Your task to perform on an android device: add a contact Image 0: 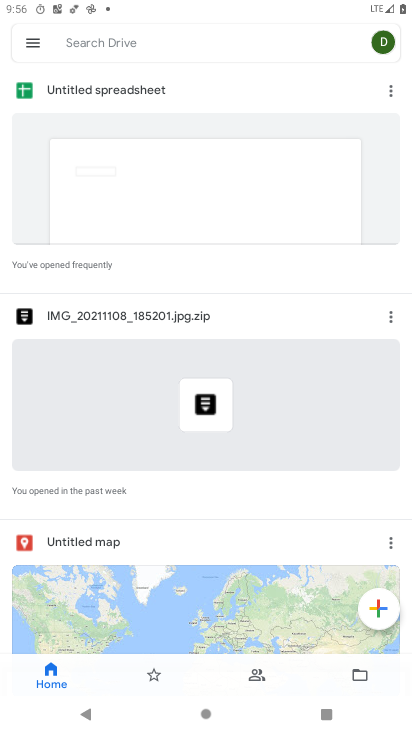
Step 0: press home button
Your task to perform on an android device: add a contact Image 1: 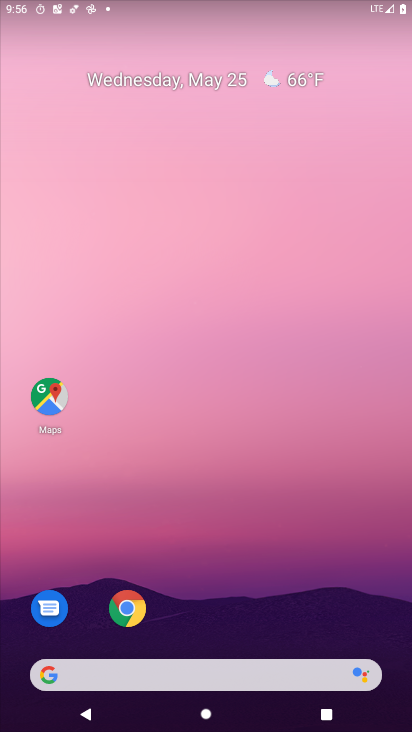
Step 1: drag from (228, 727) to (197, 219)
Your task to perform on an android device: add a contact Image 2: 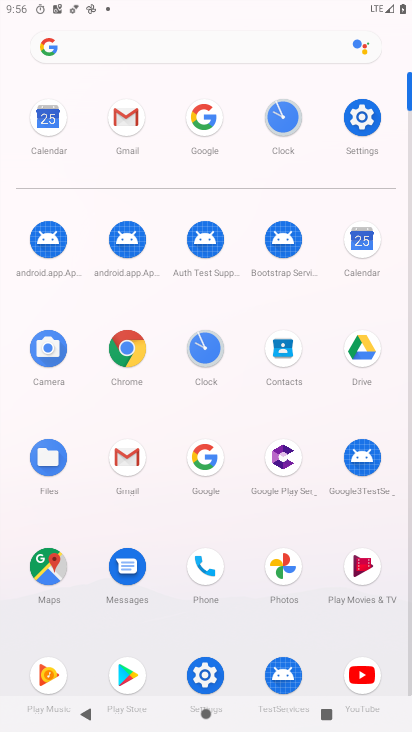
Step 2: click (279, 347)
Your task to perform on an android device: add a contact Image 3: 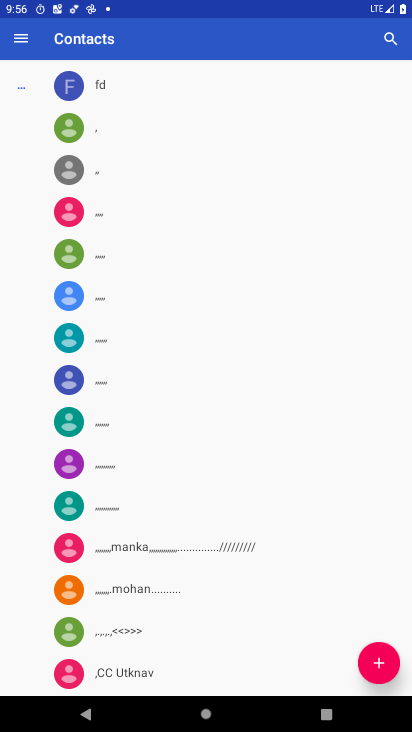
Step 3: click (381, 654)
Your task to perform on an android device: add a contact Image 4: 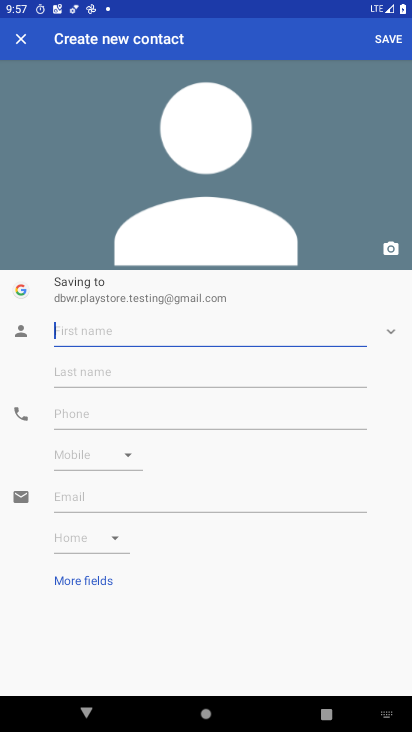
Step 4: type "wait"
Your task to perform on an android device: add a contact Image 5: 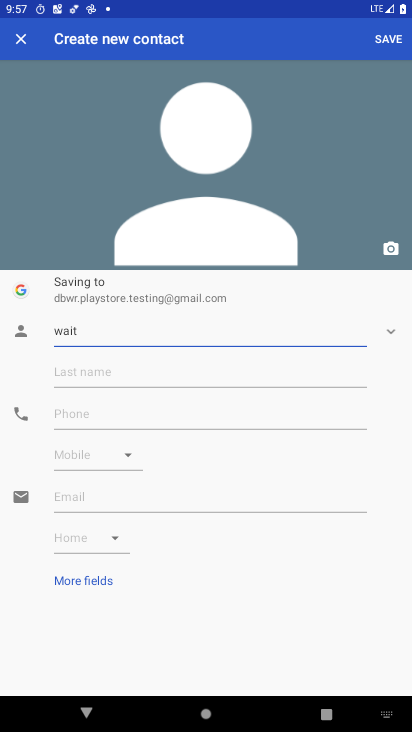
Step 5: click (95, 406)
Your task to perform on an android device: add a contact Image 6: 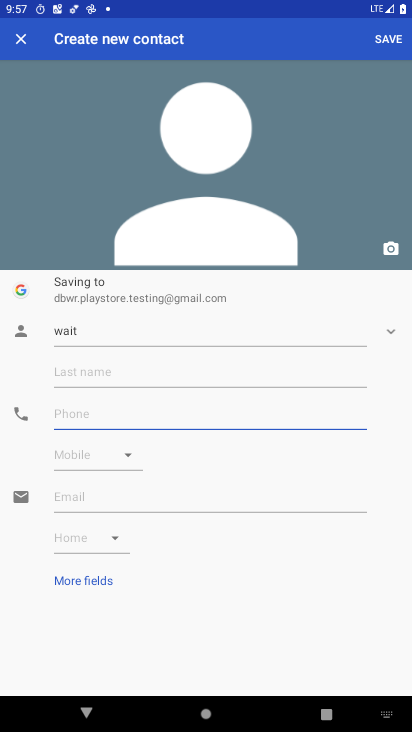
Step 6: type "767"
Your task to perform on an android device: add a contact Image 7: 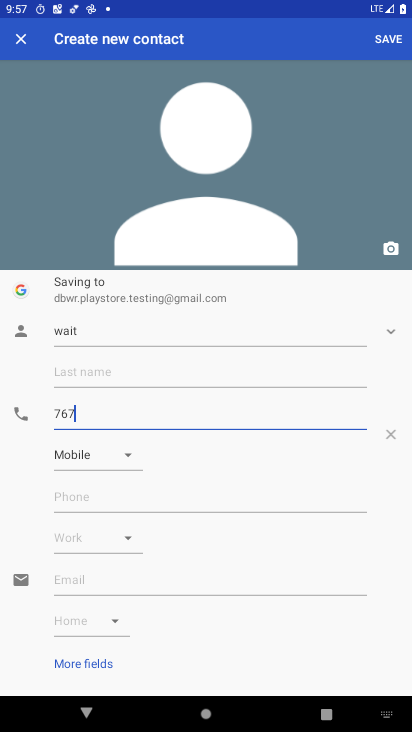
Step 7: click (384, 42)
Your task to perform on an android device: add a contact Image 8: 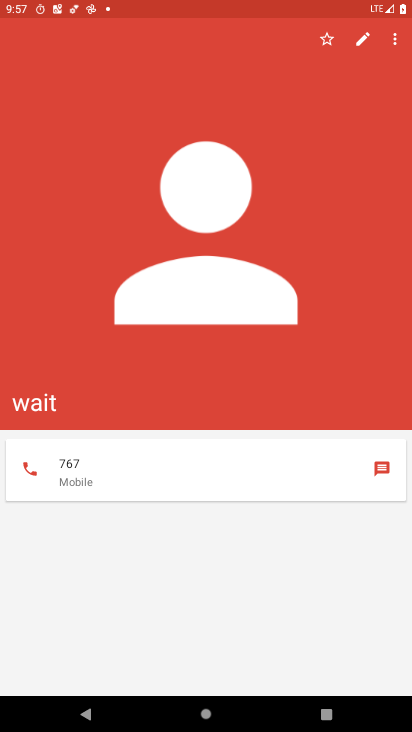
Step 8: task complete